Your task to perform on an android device: open a bookmark in the chrome app Image 0: 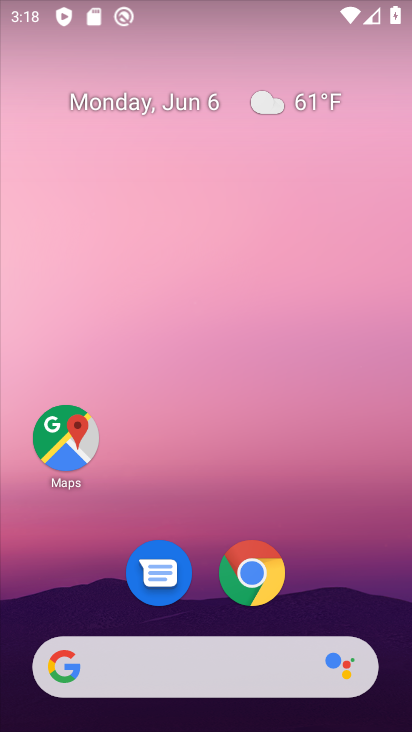
Step 0: click (254, 581)
Your task to perform on an android device: open a bookmark in the chrome app Image 1: 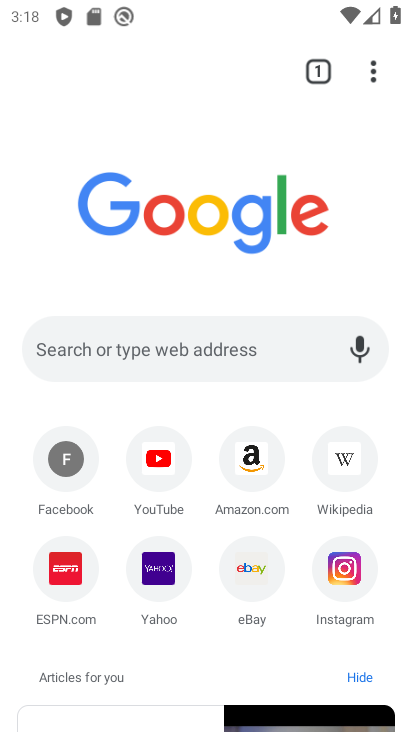
Step 1: click (374, 63)
Your task to perform on an android device: open a bookmark in the chrome app Image 2: 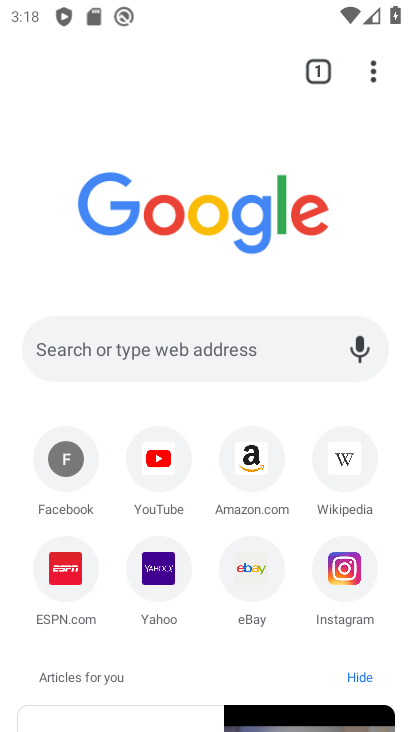
Step 2: click (376, 68)
Your task to perform on an android device: open a bookmark in the chrome app Image 3: 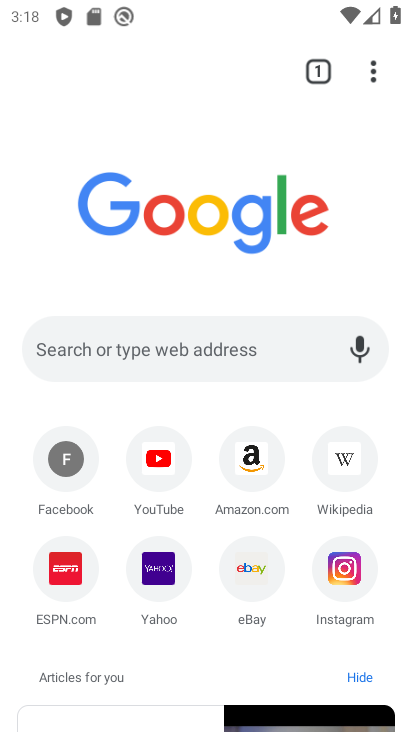
Step 3: click (377, 71)
Your task to perform on an android device: open a bookmark in the chrome app Image 4: 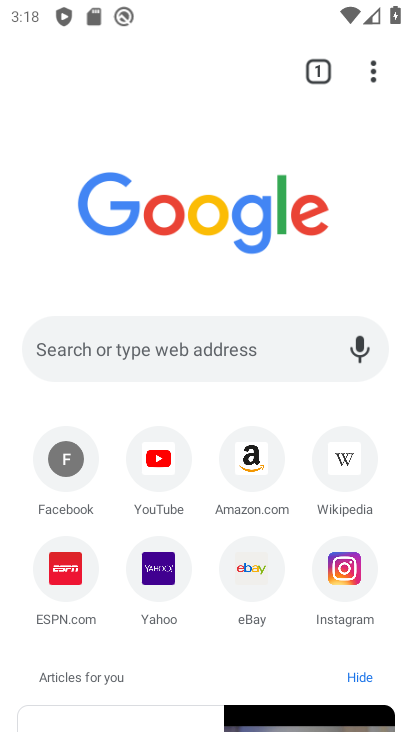
Step 4: click (377, 70)
Your task to perform on an android device: open a bookmark in the chrome app Image 5: 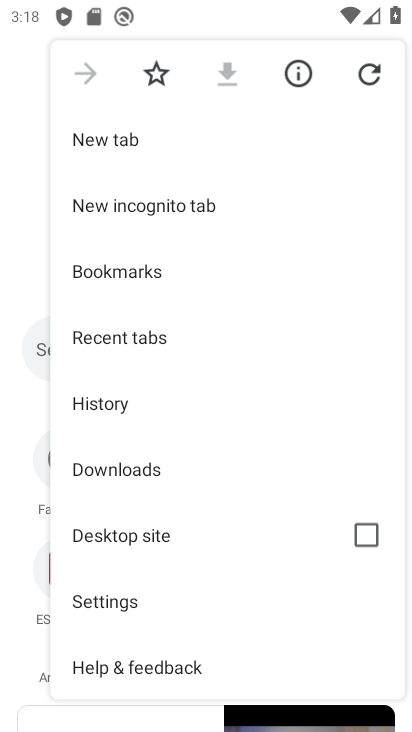
Step 5: click (98, 267)
Your task to perform on an android device: open a bookmark in the chrome app Image 6: 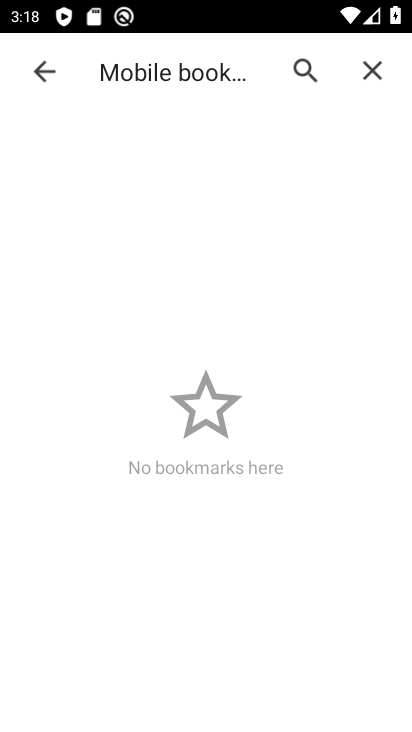
Step 6: task complete